Your task to perform on an android device: See recent photos Image 0: 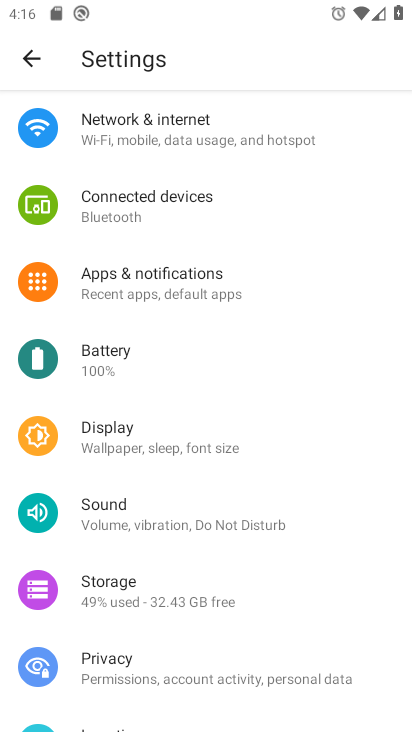
Step 0: press home button
Your task to perform on an android device: See recent photos Image 1: 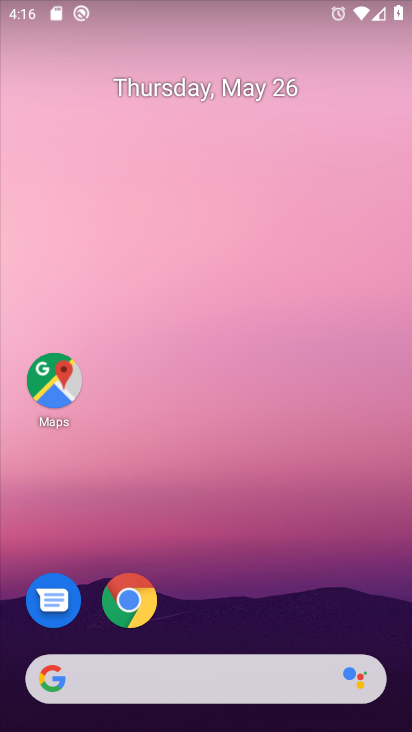
Step 1: drag from (200, 586) to (235, 38)
Your task to perform on an android device: See recent photos Image 2: 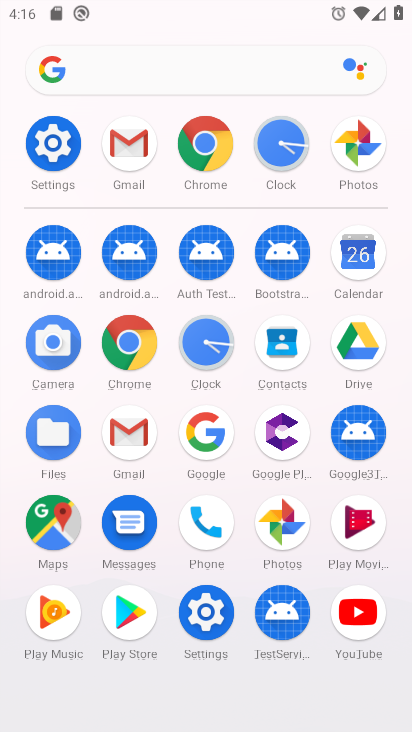
Step 2: click (282, 534)
Your task to perform on an android device: See recent photos Image 3: 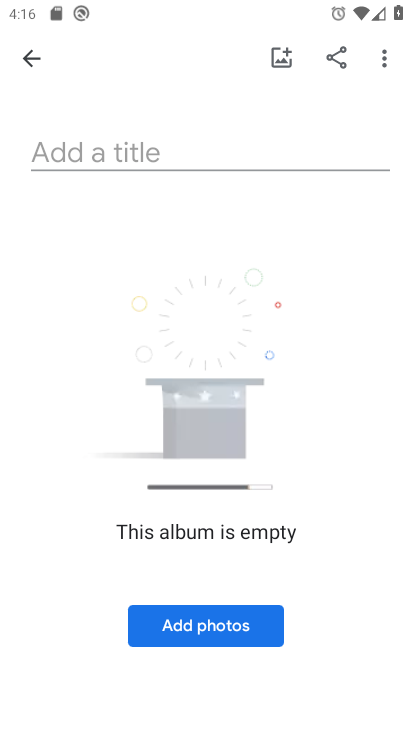
Step 3: click (28, 52)
Your task to perform on an android device: See recent photos Image 4: 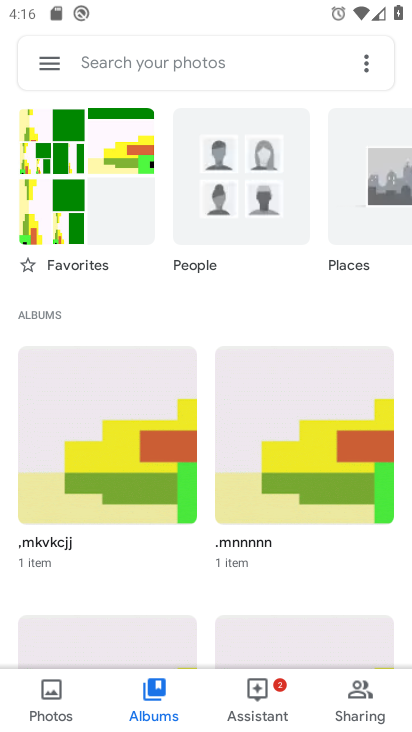
Step 4: click (45, 691)
Your task to perform on an android device: See recent photos Image 5: 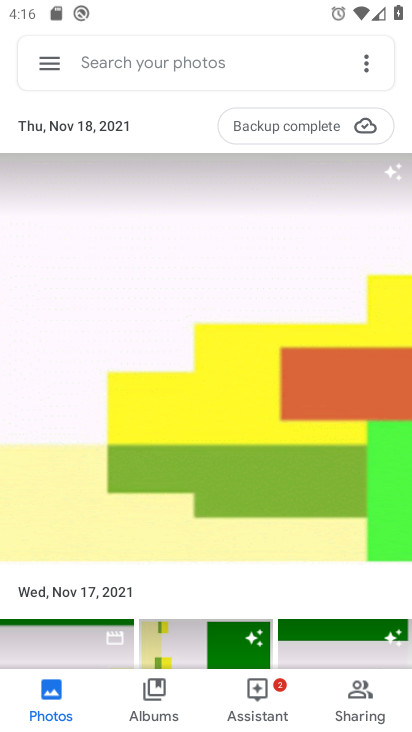
Step 5: task complete